Your task to perform on an android device: find photos in the google photos app Image 0: 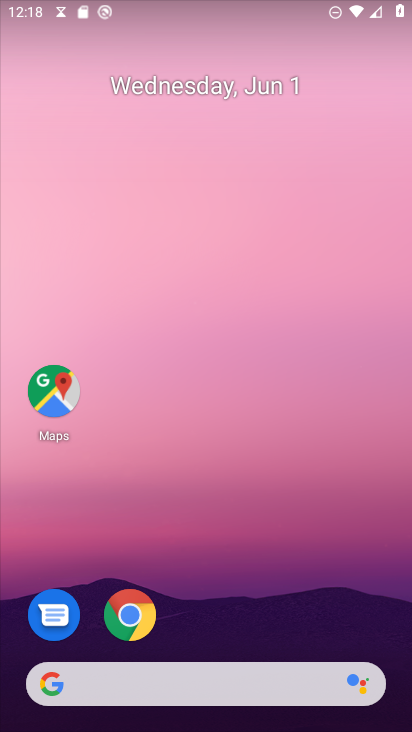
Step 0: drag from (296, 515) to (309, 129)
Your task to perform on an android device: find photos in the google photos app Image 1: 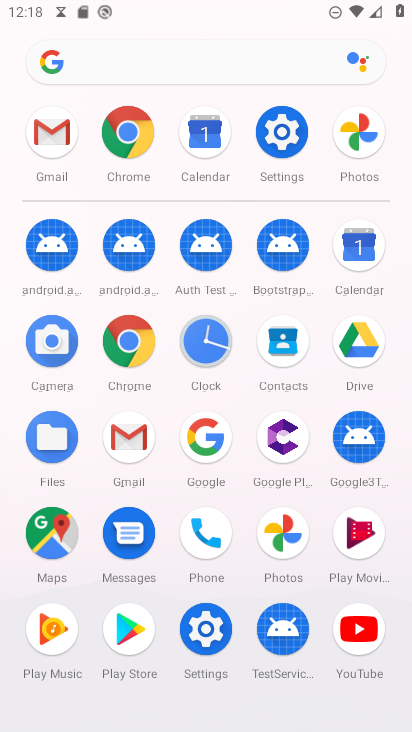
Step 1: click (290, 544)
Your task to perform on an android device: find photos in the google photos app Image 2: 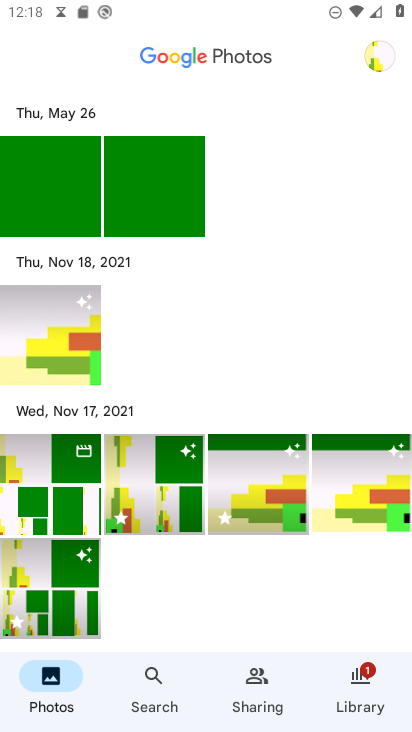
Step 2: task complete